Your task to perform on an android device: add a contact Image 0: 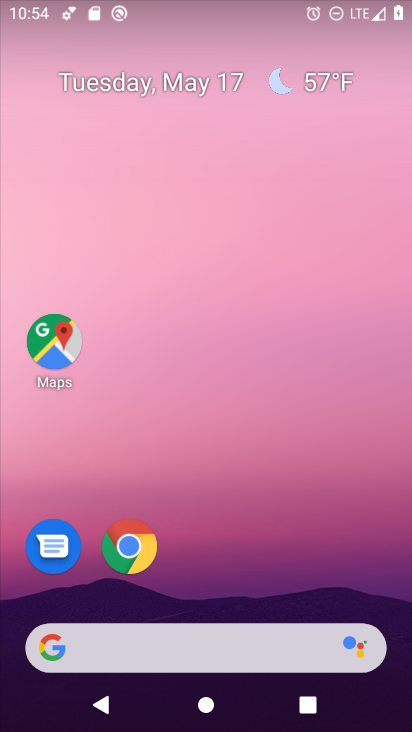
Step 0: drag from (304, 596) to (333, 5)
Your task to perform on an android device: add a contact Image 1: 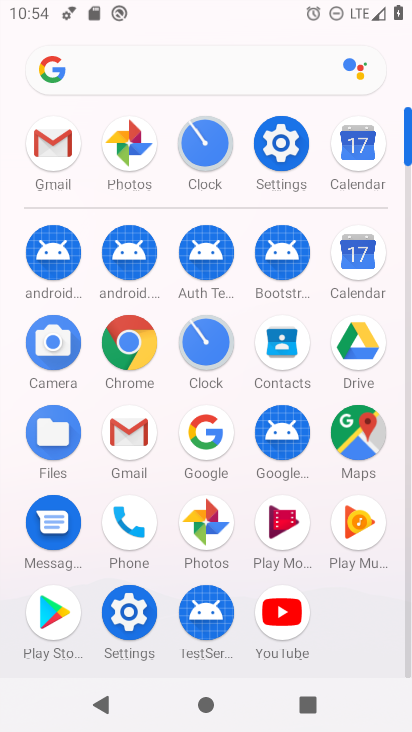
Step 1: click (285, 343)
Your task to perform on an android device: add a contact Image 2: 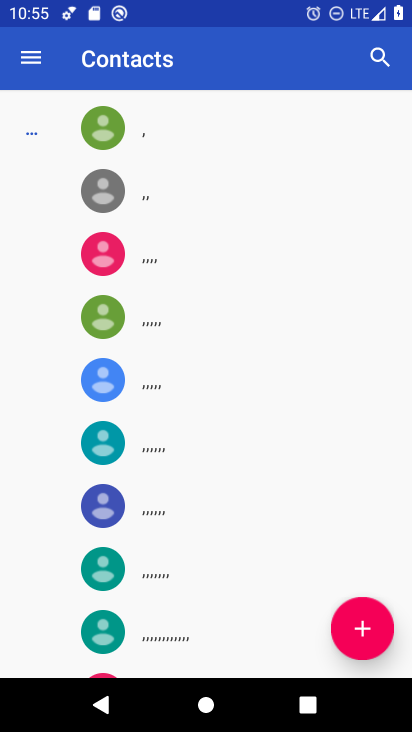
Step 2: click (367, 627)
Your task to perform on an android device: add a contact Image 3: 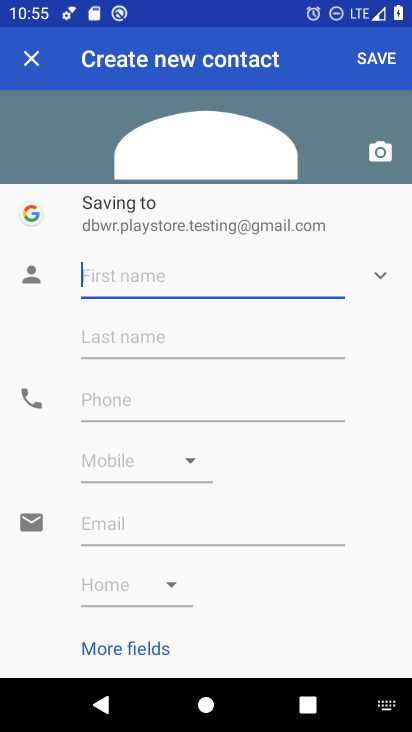
Step 3: type "nitin"
Your task to perform on an android device: add a contact Image 4: 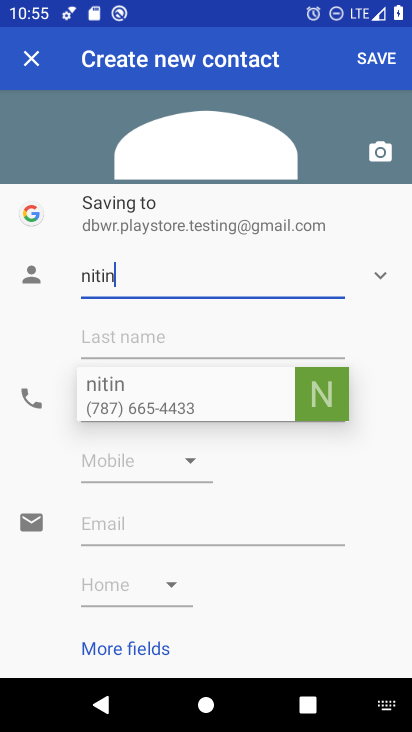
Step 4: click (394, 384)
Your task to perform on an android device: add a contact Image 5: 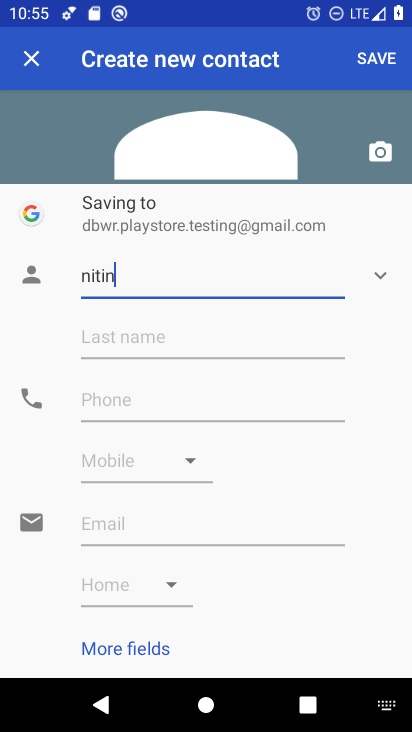
Step 5: click (100, 409)
Your task to perform on an android device: add a contact Image 6: 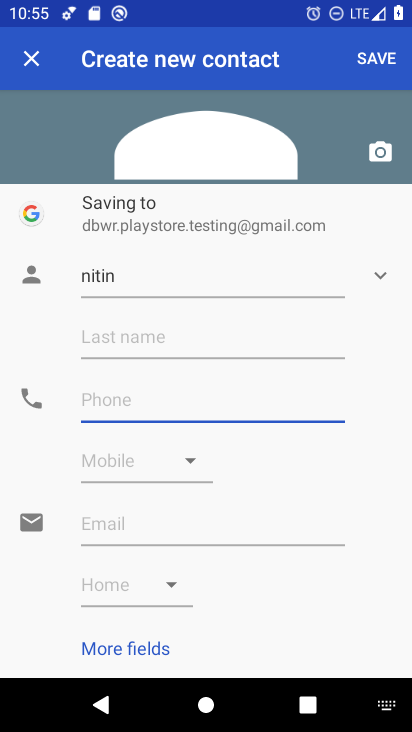
Step 6: type "988776656667"
Your task to perform on an android device: add a contact Image 7: 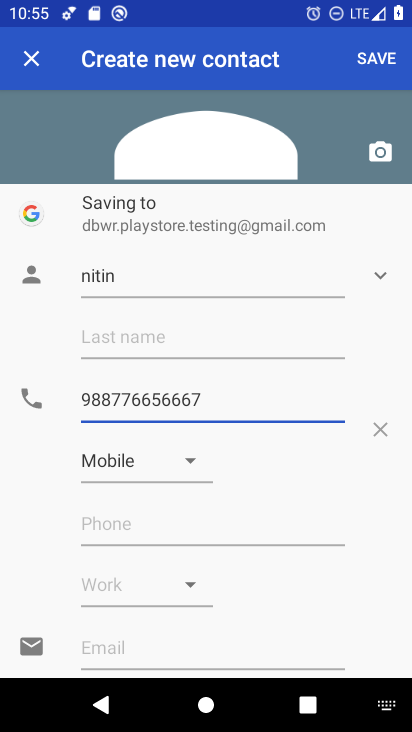
Step 7: click (385, 64)
Your task to perform on an android device: add a contact Image 8: 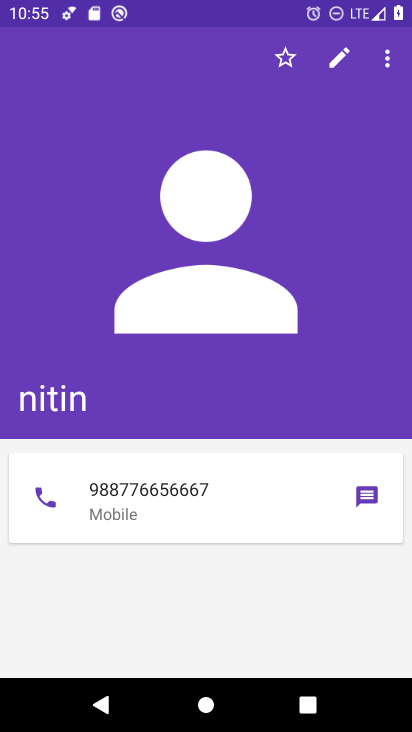
Step 8: task complete